Your task to perform on an android device: open a new tab in the chrome app Image 0: 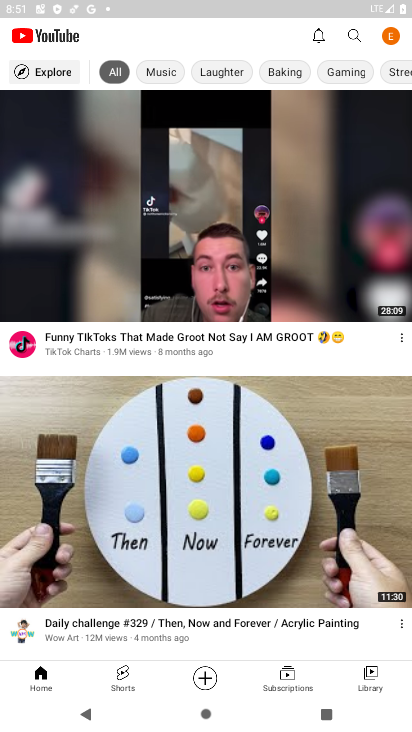
Step 0: press home button
Your task to perform on an android device: open a new tab in the chrome app Image 1: 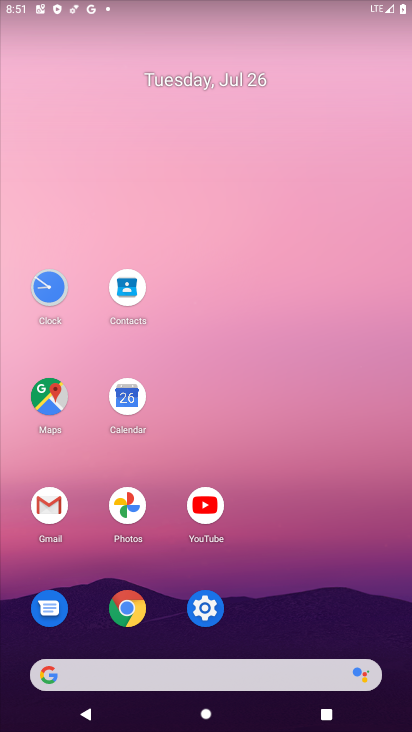
Step 1: click (133, 612)
Your task to perform on an android device: open a new tab in the chrome app Image 2: 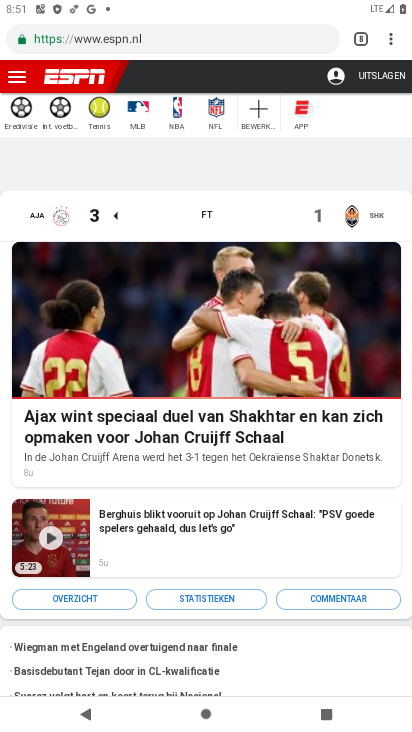
Step 2: click (390, 38)
Your task to perform on an android device: open a new tab in the chrome app Image 3: 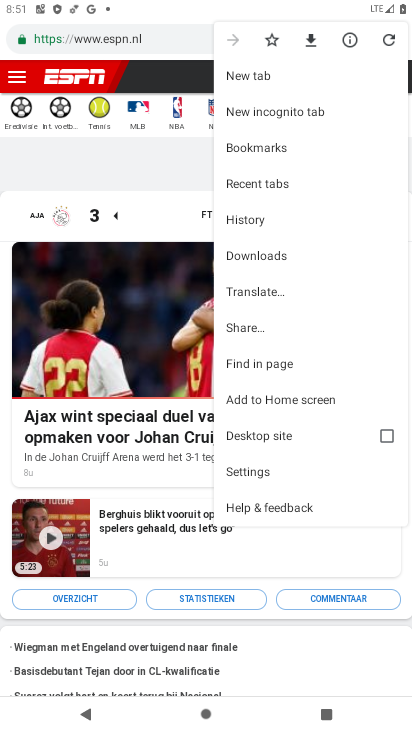
Step 3: click (251, 77)
Your task to perform on an android device: open a new tab in the chrome app Image 4: 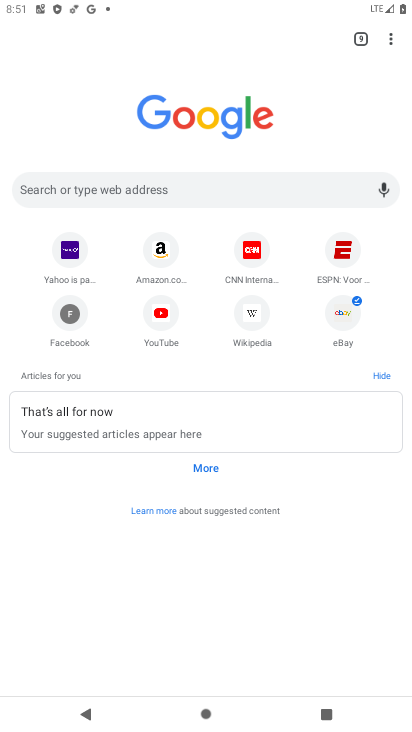
Step 4: task complete